Your task to perform on an android device: clear history in the chrome app Image 0: 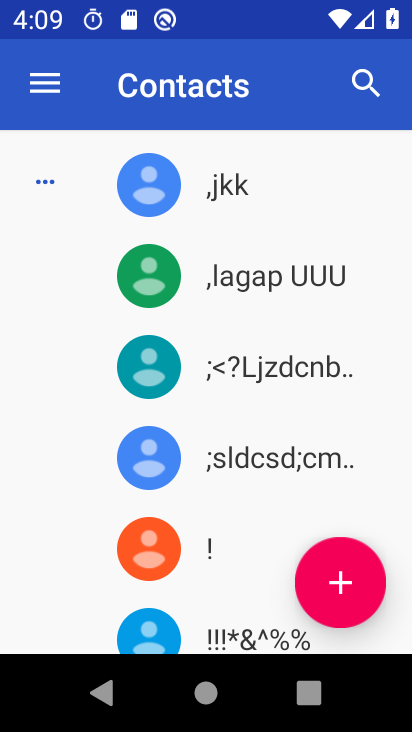
Step 0: press home button
Your task to perform on an android device: clear history in the chrome app Image 1: 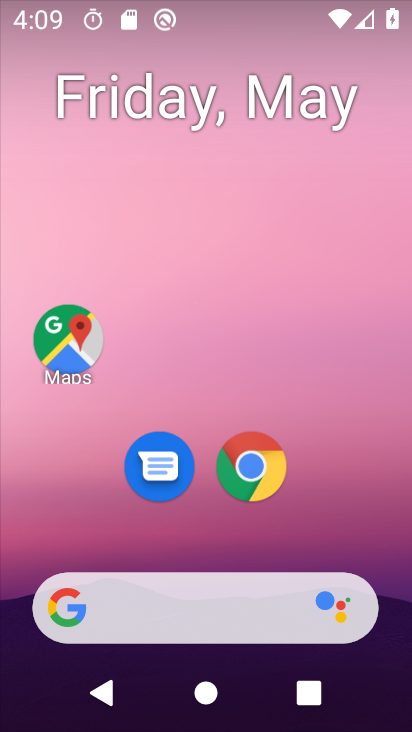
Step 1: click (247, 462)
Your task to perform on an android device: clear history in the chrome app Image 2: 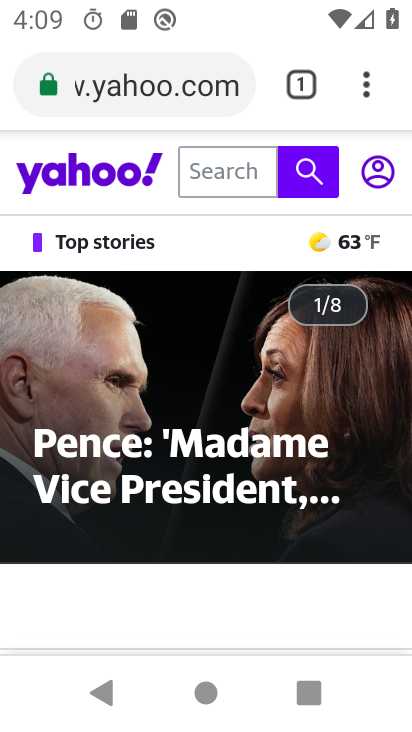
Step 2: click (368, 81)
Your task to perform on an android device: clear history in the chrome app Image 3: 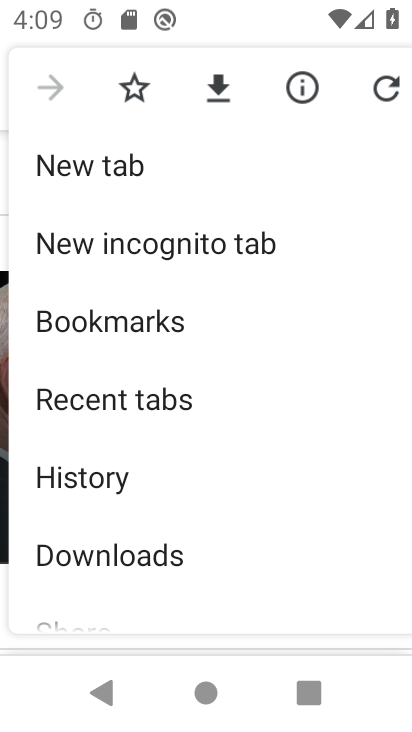
Step 3: click (106, 473)
Your task to perform on an android device: clear history in the chrome app Image 4: 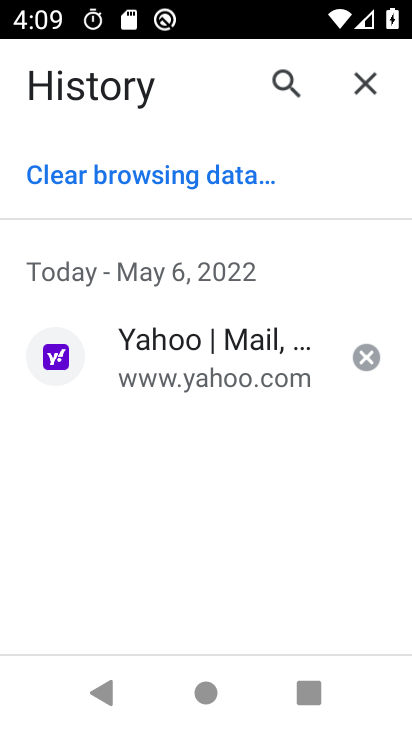
Step 4: click (131, 176)
Your task to perform on an android device: clear history in the chrome app Image 5: 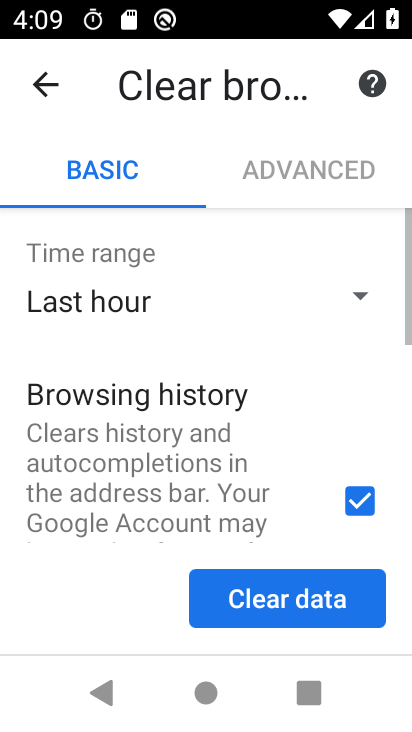
Step 5: click (328, 607)
Your task to perform on an android device: clear history in the chrome app Image 6: 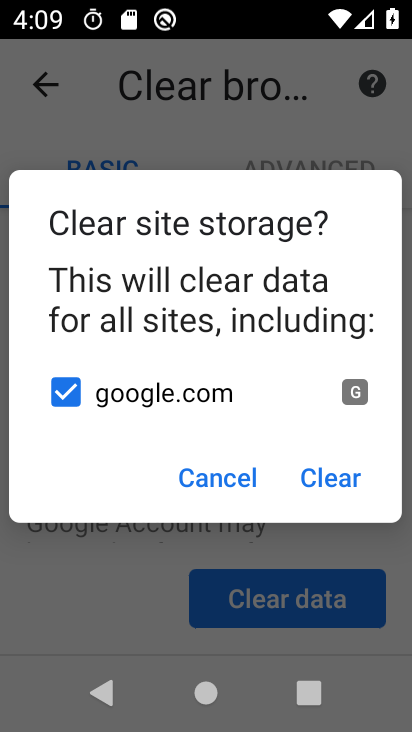
Step 6: click (332, 480)
Your task to perform on an android device: clear history in the chrome app Image 7: 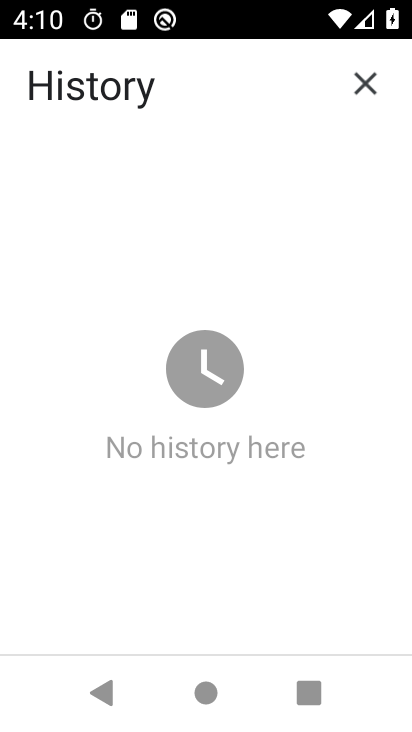
Step 7: task complete